Your task to perform on an android device: change the clock display to show seconds Image 0: 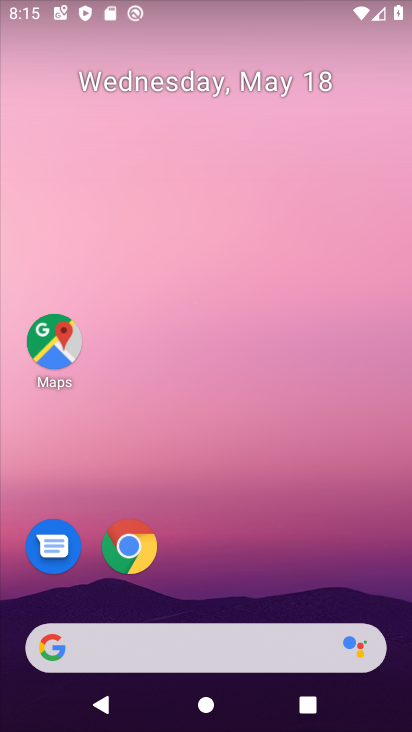
Step 0: drag from (250, 668) to (366, 210)
Your task to perform on an android device: change the clock display to show seconds Image 1: 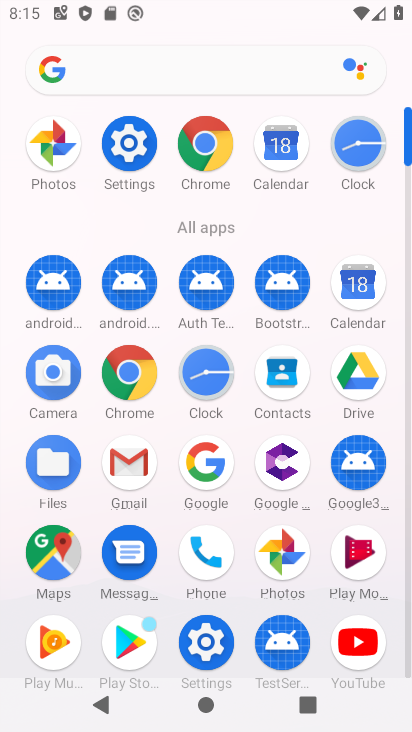
Step 1: click (196, 380)
Your task to perform on an android device: change the clock display to show seconds Image 2: 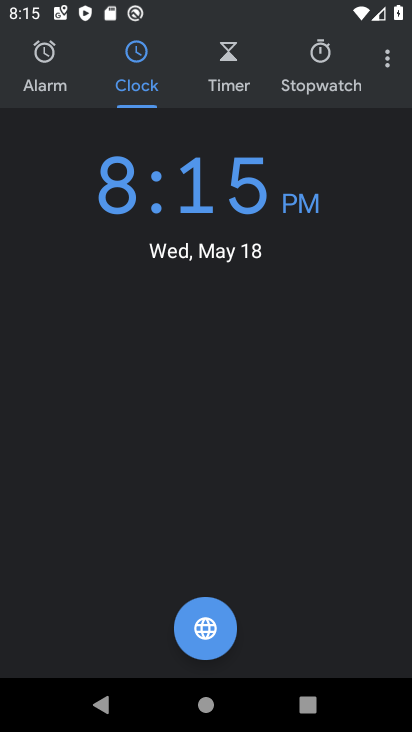
Step 2: click (389, 76)
Your task to perform on an android device: change the clock display to show seconds Image 3: 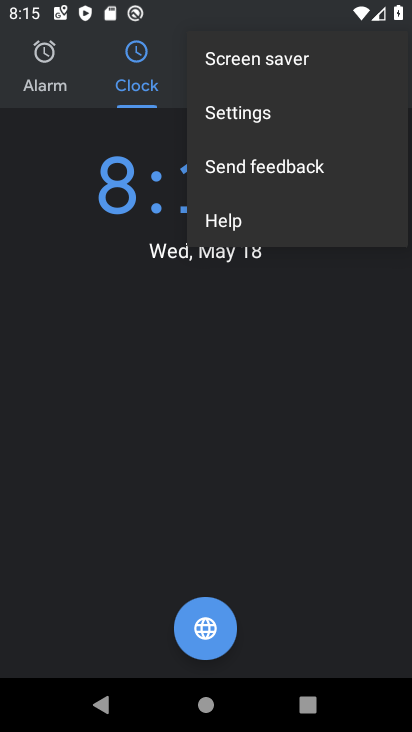
Step 3: click (248, 128)
Your task to perform on an android device: change the clock display to show seconds Image 4: 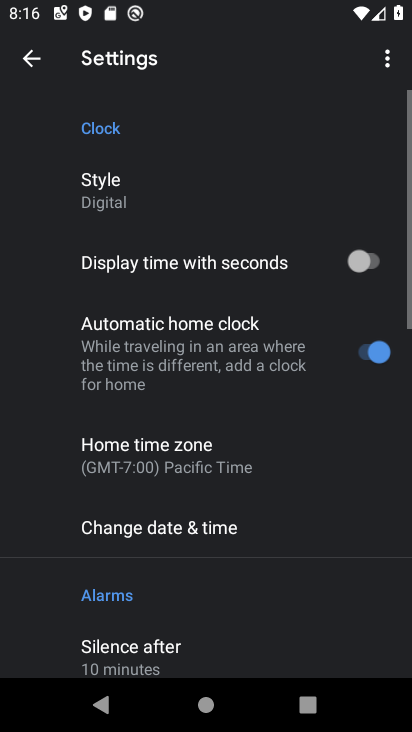
Step 4: click (298, 247)
Your task to perform on an android device: change the clock display to show seconds Image 5: 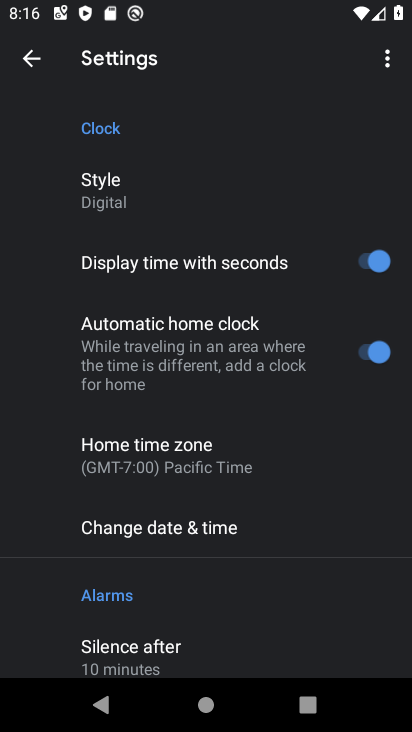
Step 5: task complete